Your task to perform on an android device: Open Reddit.com Image 0: 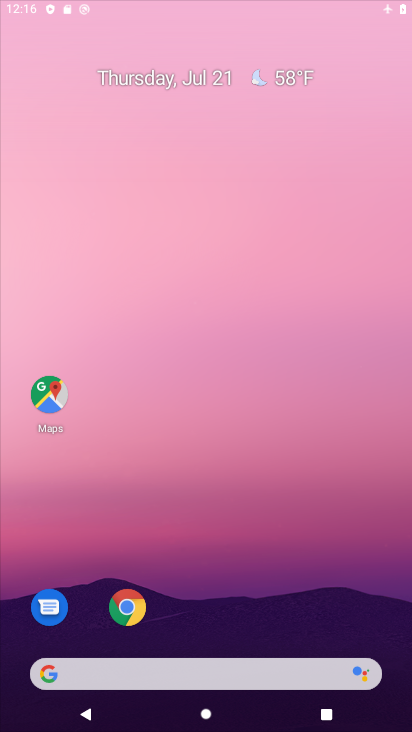
Step 0: press home button
Your task to perform on an android device: Open Reddit.com Image 1: 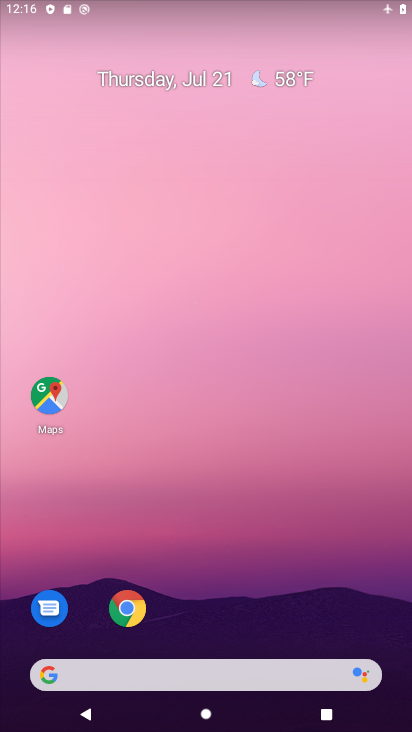
Step 1: click (118, 599)
Your task to perform on an android device: Open Reddit.com Image 2: 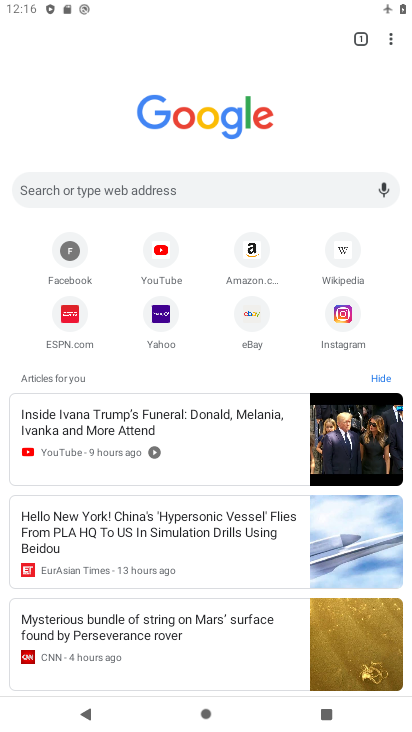
Step 2: click (116, 192)
Your task to perform on an android device: Open Reddit.com Image 3: 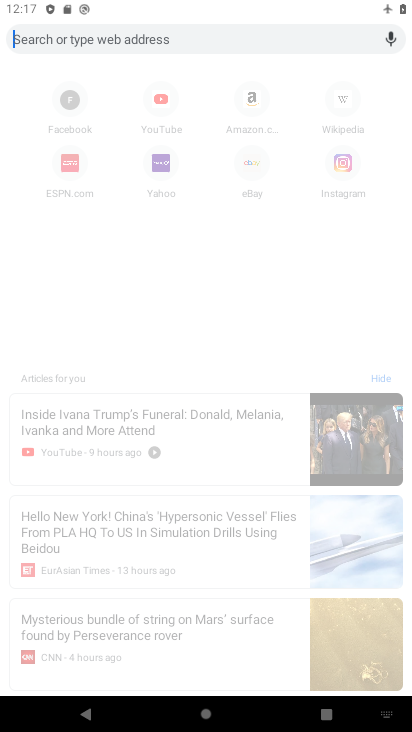
Step 3: type "reddit"
Your task to perform on an android device: Open Reddit.com Image 4: 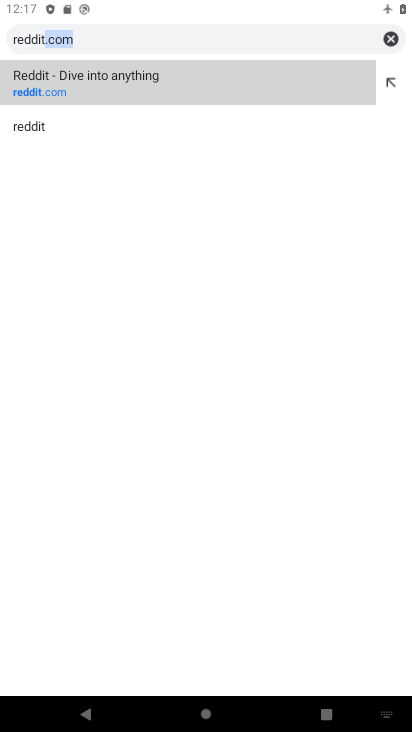
Step 4: click (60, 89)
Your task to perform on an android device: Open Reddit.com Image 5: 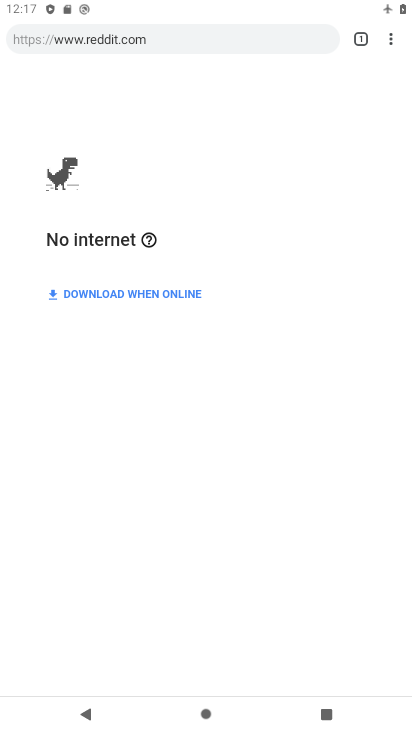
Step 5: task complete